Your task to perform on an android device: When is my next meeting? Image 0: 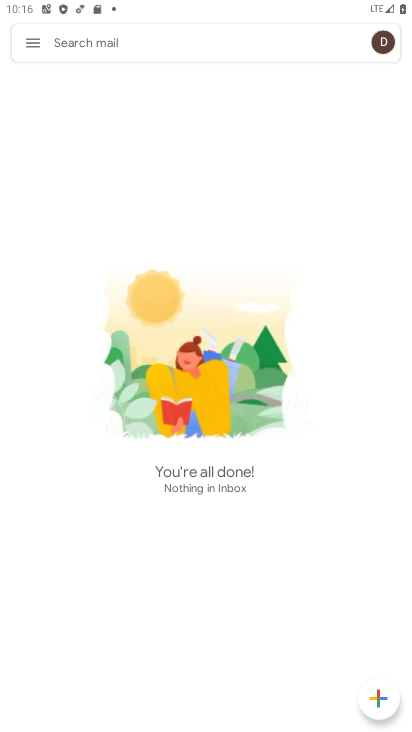
Step 0: press home button
Your task to perform on an android device: When is my next meeting? Image 1: 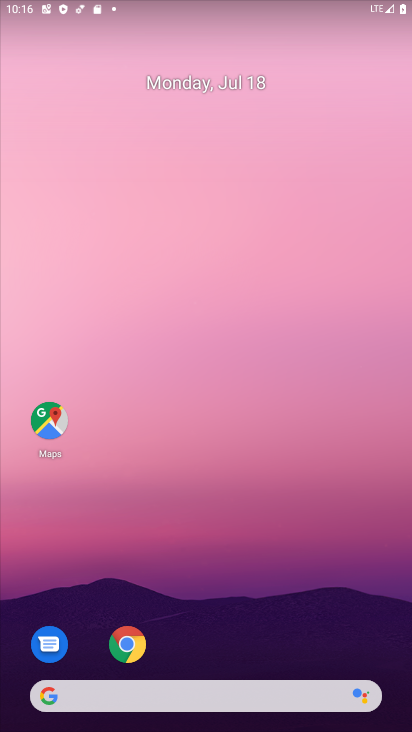
Step 1: drag from (376, 625) to (400, 86)
Your task to perform on an android device: When is my next meeting? Image 2: 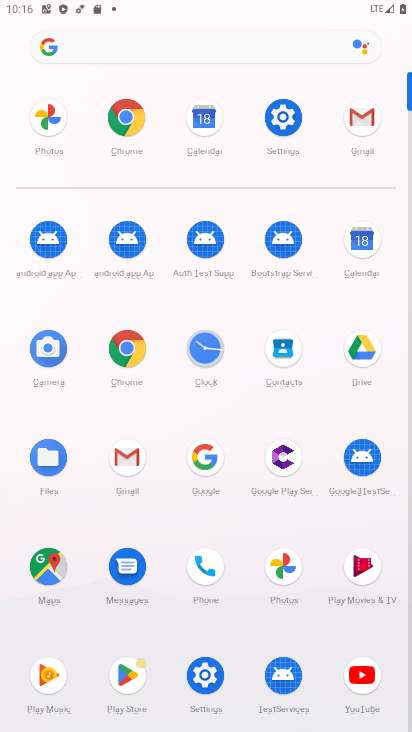
Step 2: click (365, 248)
Your task to perform on an android device: When is my next meeting? Image 3: 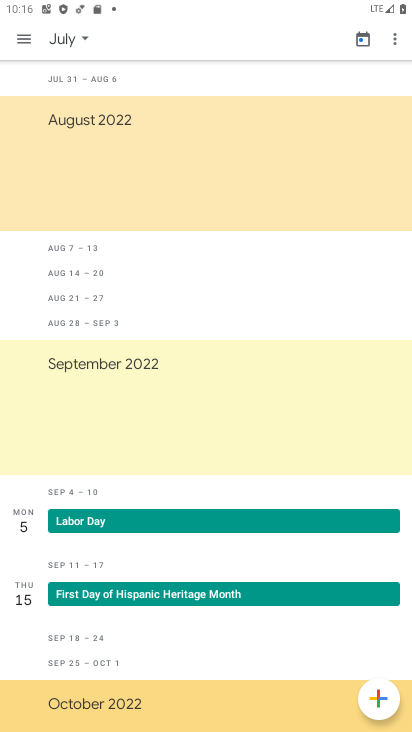
Step 3: task complete